Your task to perform on an android device: Search for "razer thresher" on walmart.com, select the first entry, and add it to the cart. Image 0: 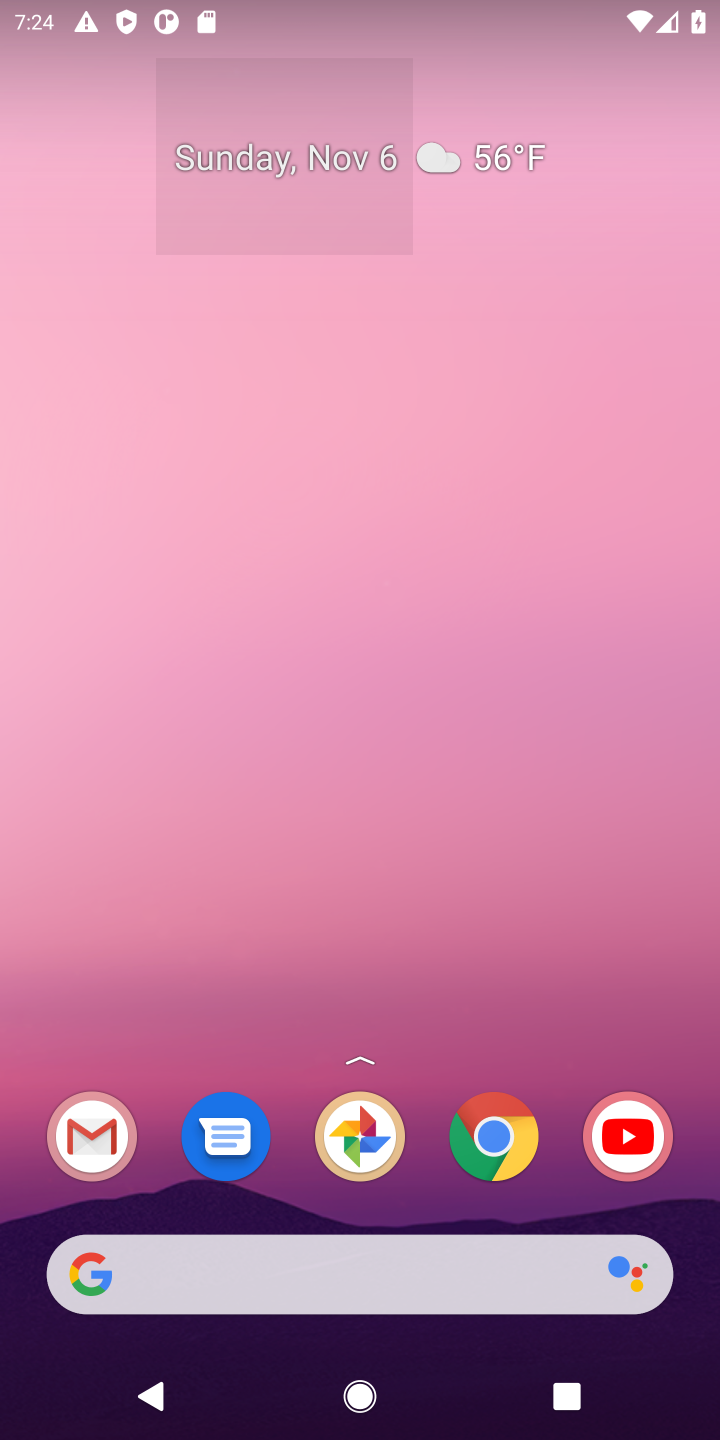
Step 0: click (243, 1266)
Your task to perform on an android device: Search for "razer thresher" on walmart.com, select the first entry, and add it to the cart. Image 1: 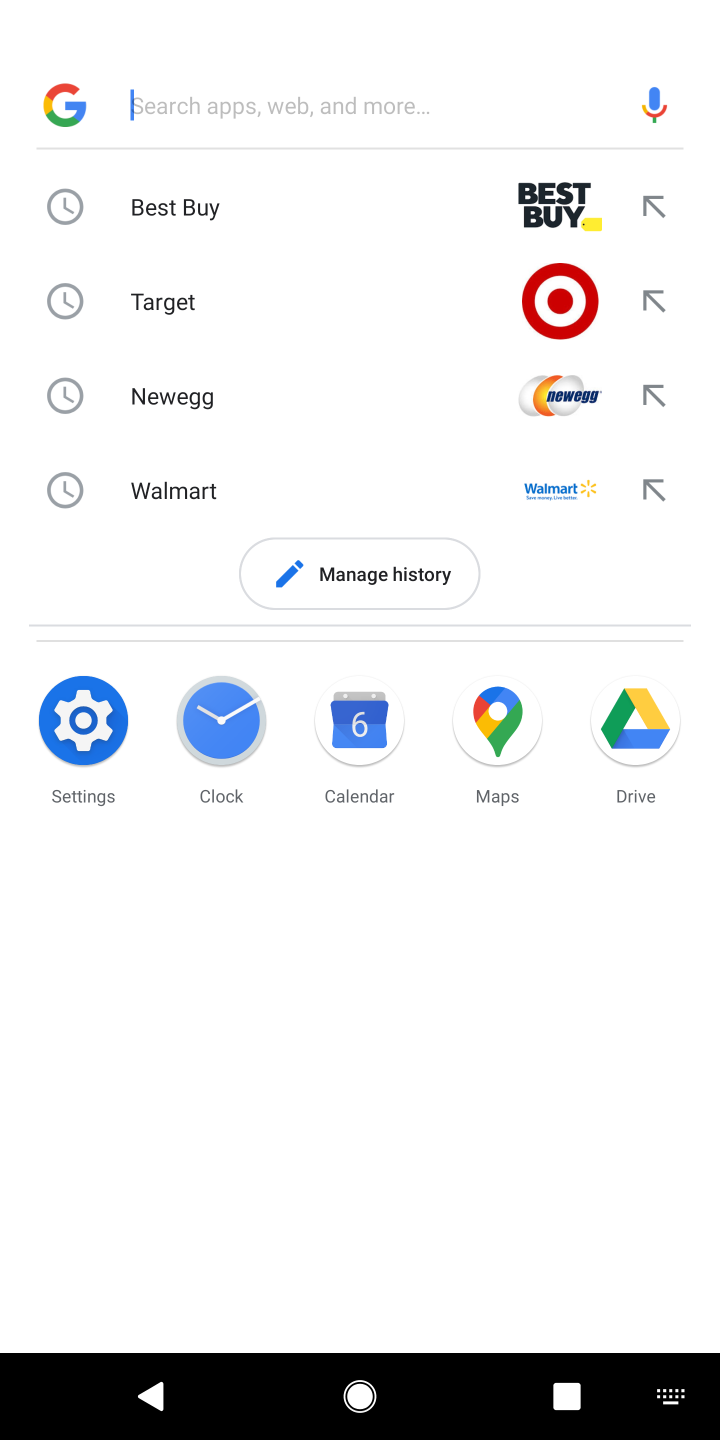
Step 1: click (256, 513)
Your task to perform on an android device: Search for "razer thresher" on walmart.com, select the first entry, and add it to the cart. Image 2: 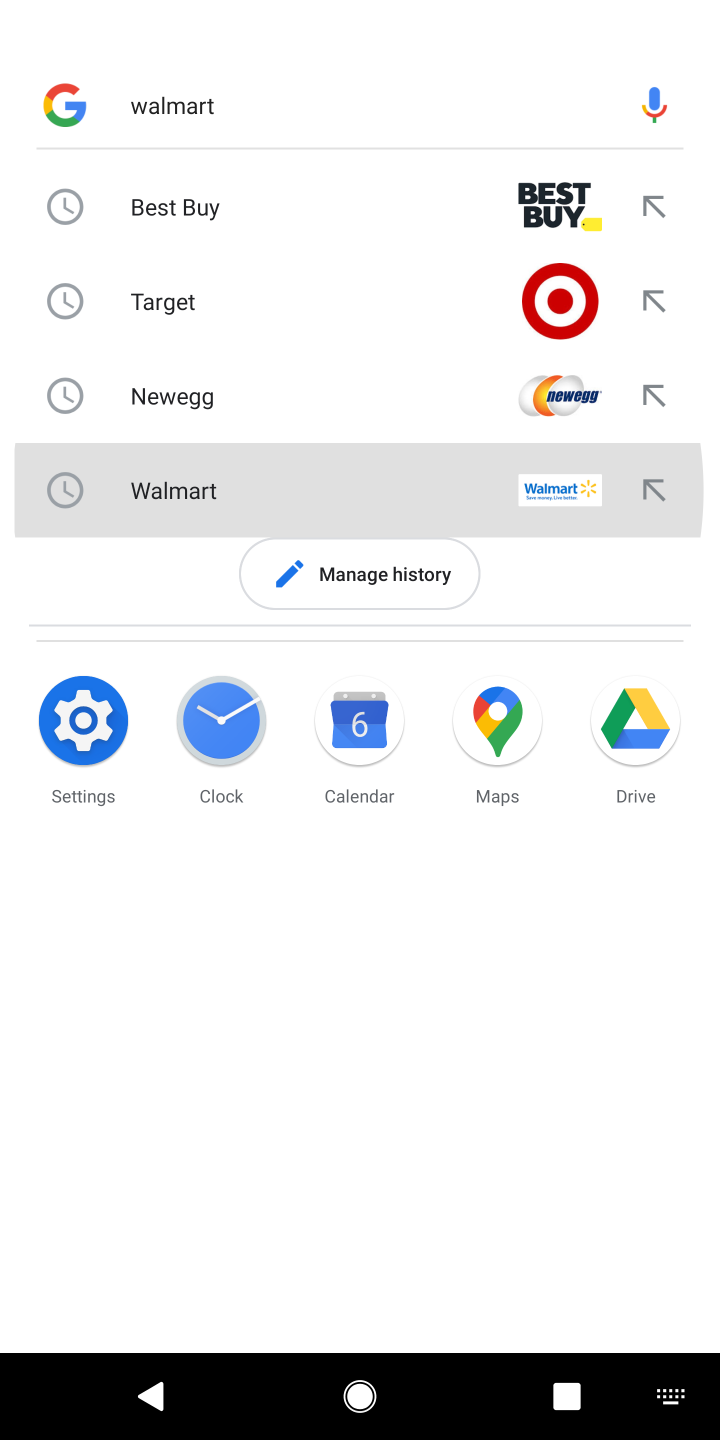
Step 2: task complete